Your task to perform on an android device: snooze an email in the gmail app Image 0: 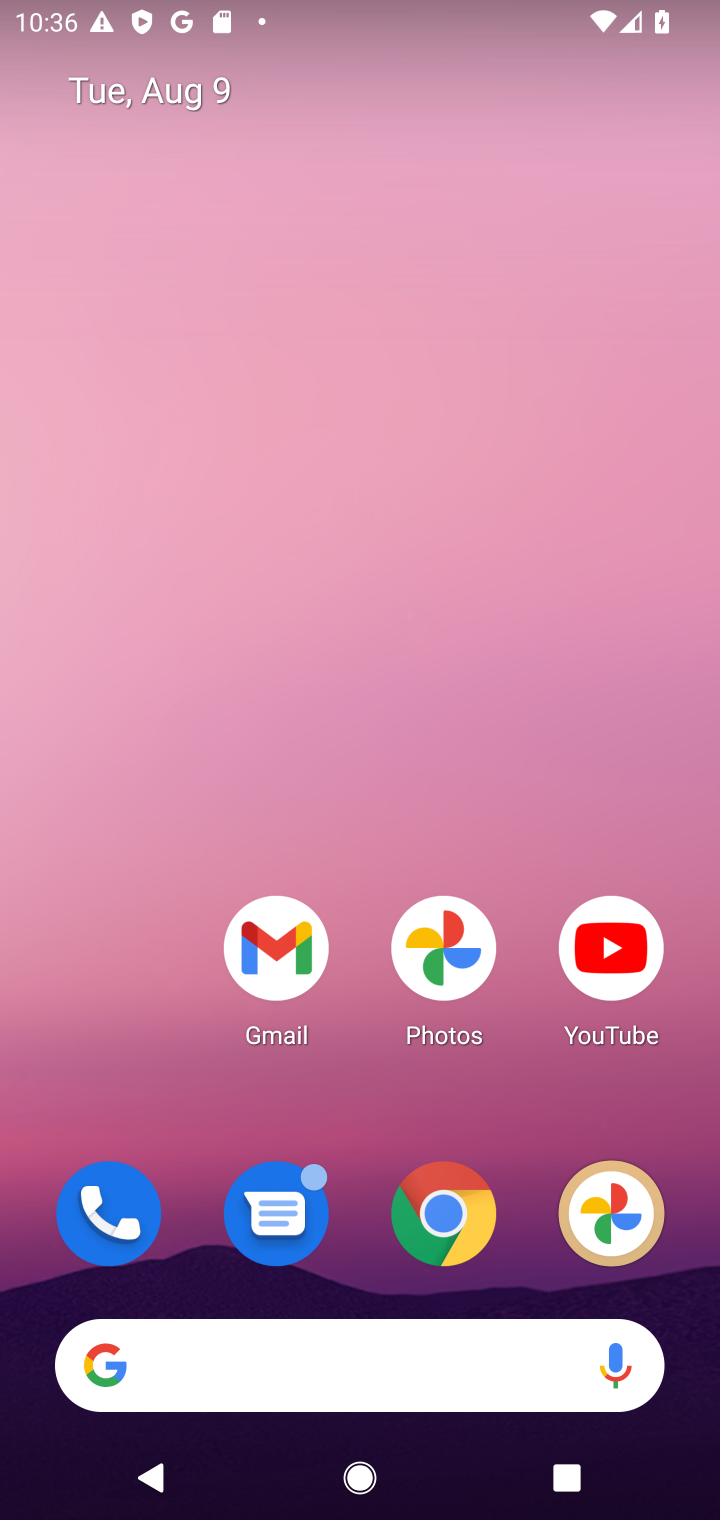
Step 0: drag from (393, 1286) to (453, 173)
Your task to perform on an android device: snooze an email in the gmail app Image 1: 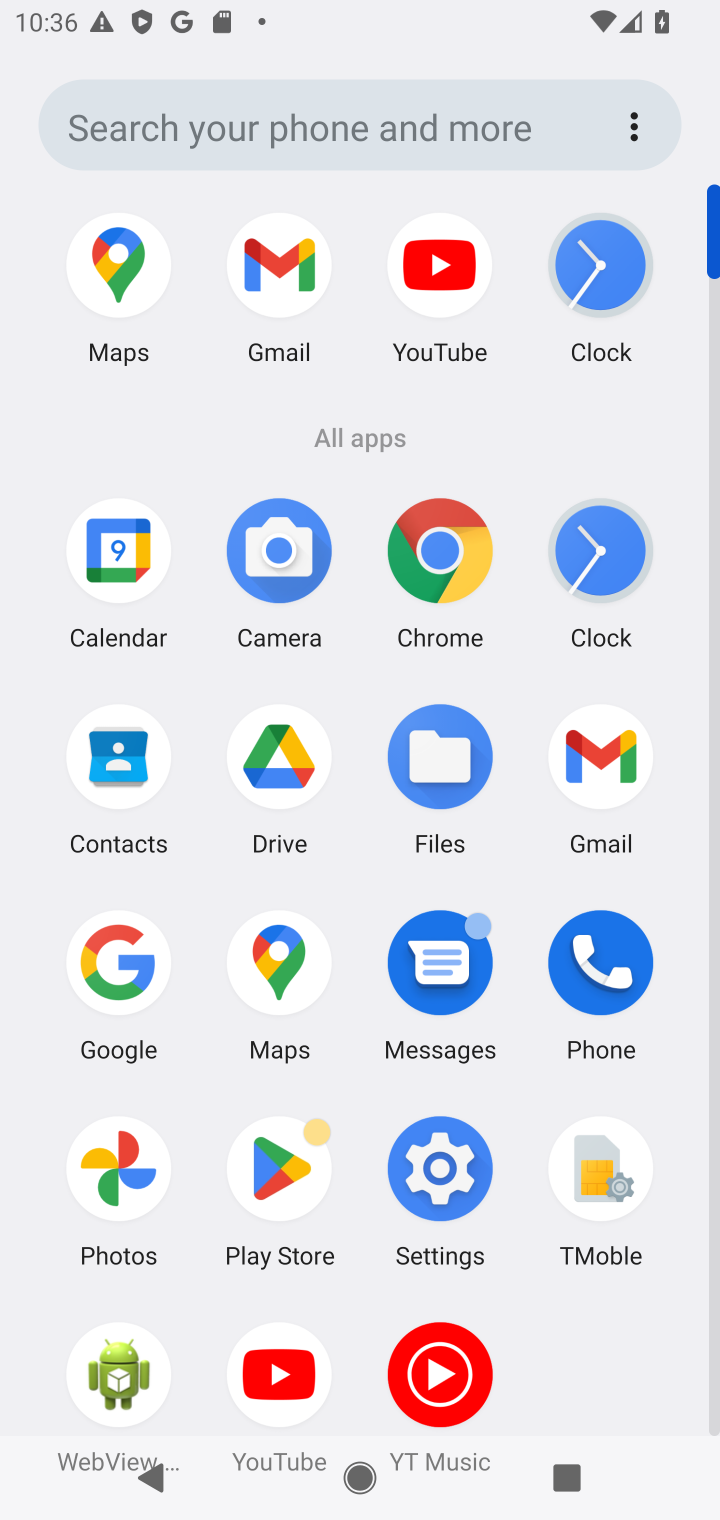
Step 1: click (583, 768)
Your task to perform on an android device: snooze an email in the gmail app Image 2: 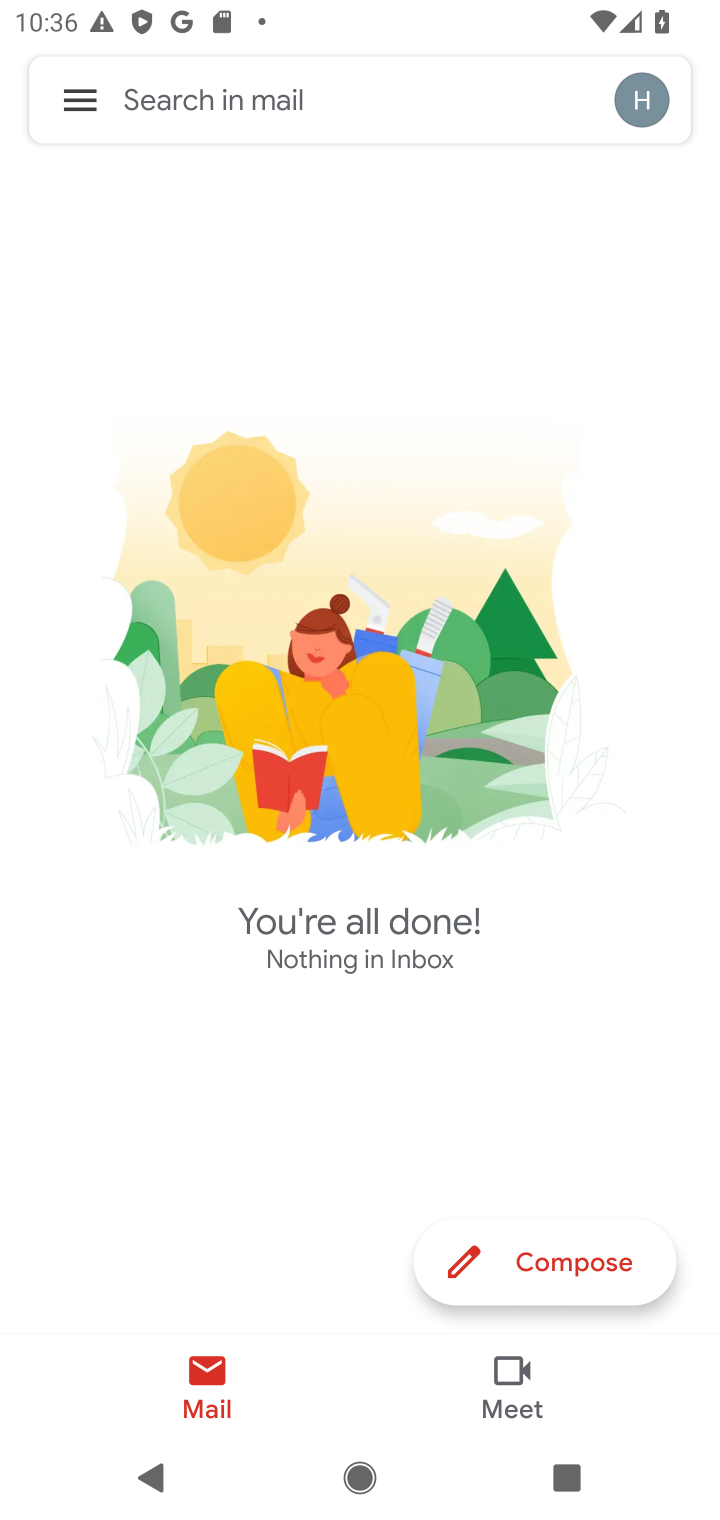
Step 2: click (79, 91)
Your task to perform on an android device: snooze an email in the gmail app Image 3: 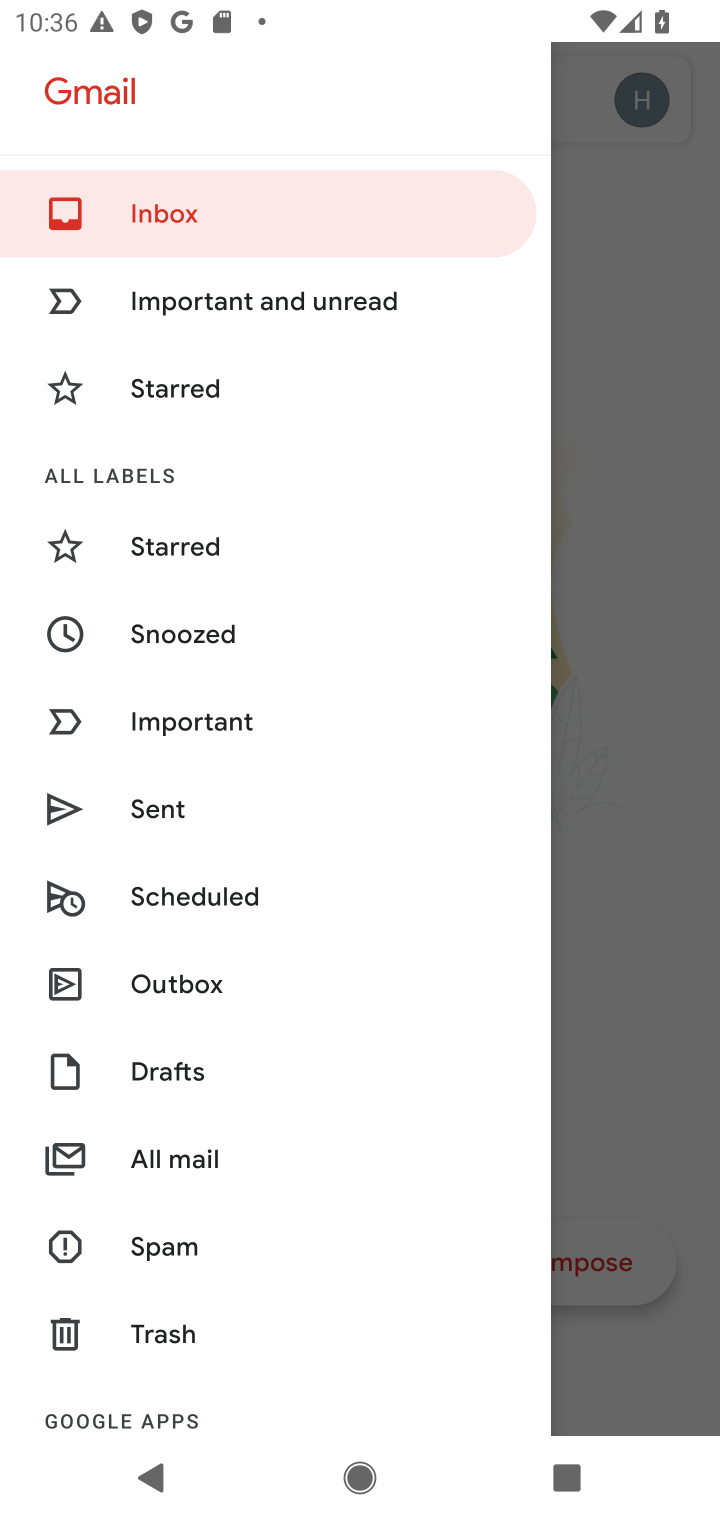
Step 3: click (173, 1169)
Your task to perform on an android device: snooze an email in the gmail app Image 4: 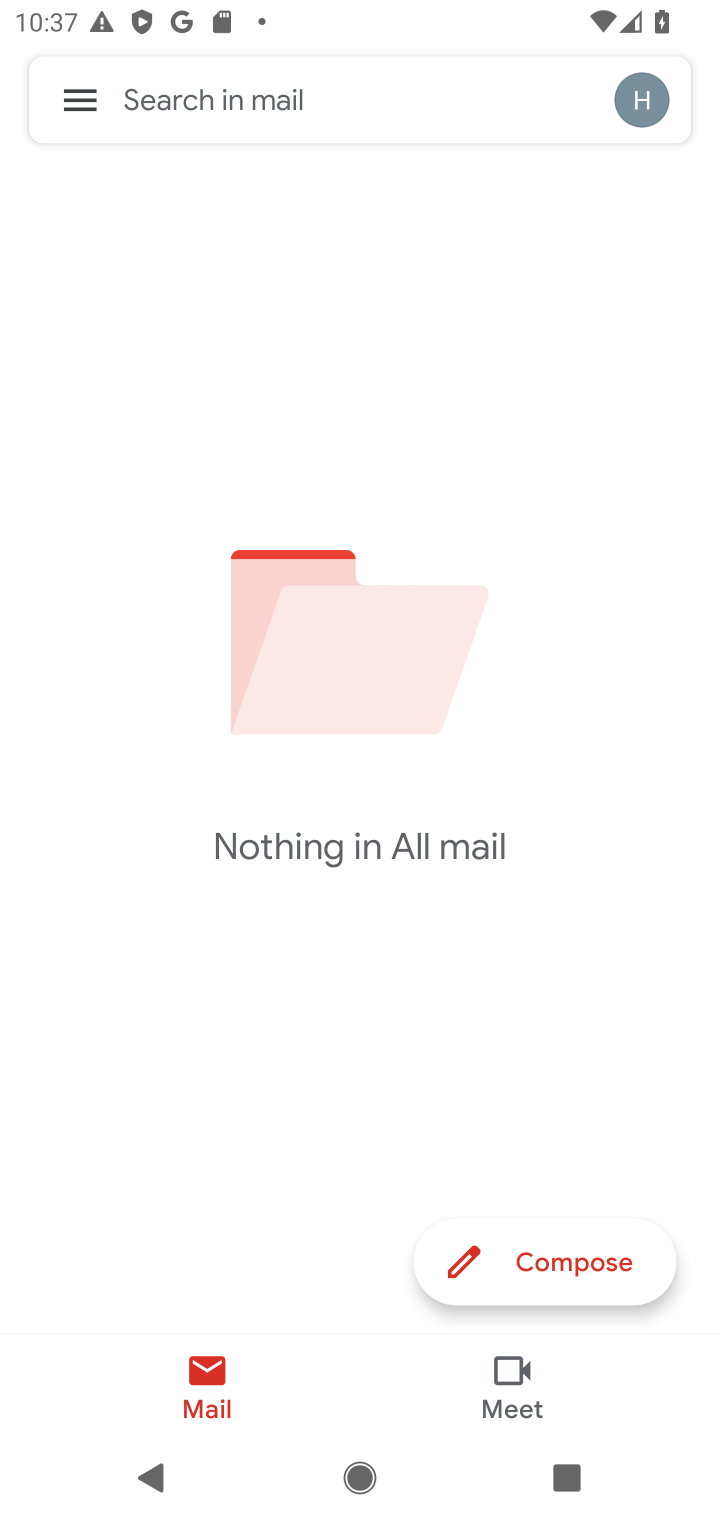
Step 4: task complete